Your task to perform on an android device: Go to Maps Image 0: 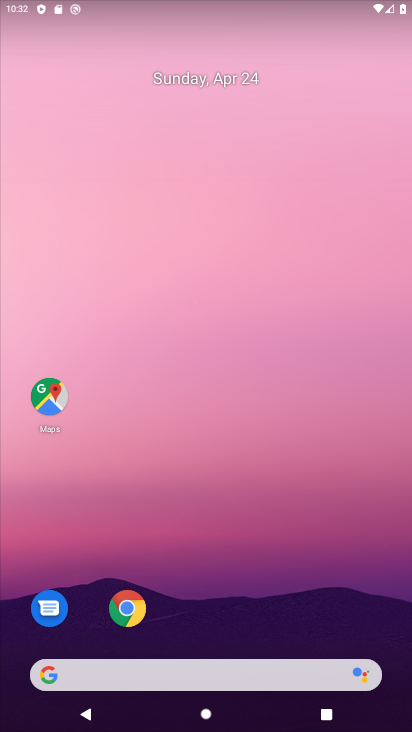
Step 0: click (47, 396)
Your task to perform on an android device: Go to Maps Image 1: 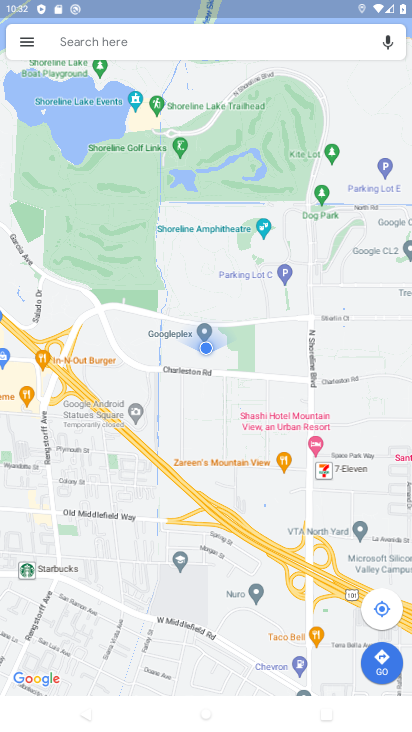
Step 1: task complete